Your task to perform on an android device: move an email to a new category in the gmail app Image 0: 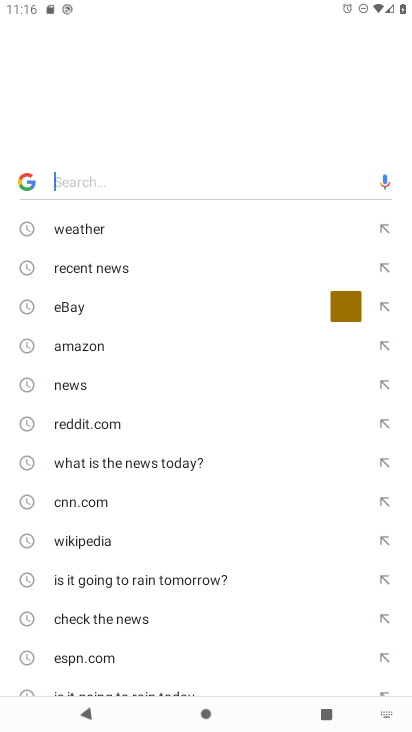
Step 0: drag from (365, 546) to (206, 68)
Your task to perform on an android device: move an email to a new category in the gmail app Image 1: 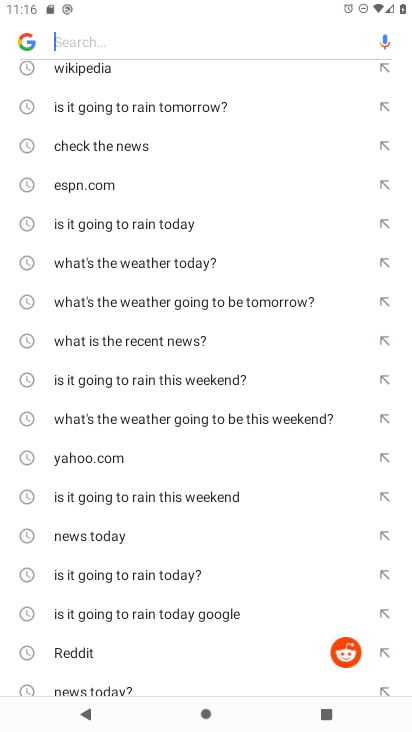
Step 1: press home button
Your task to perform on an android device: move an email to a new category in the gmail app Image 2: 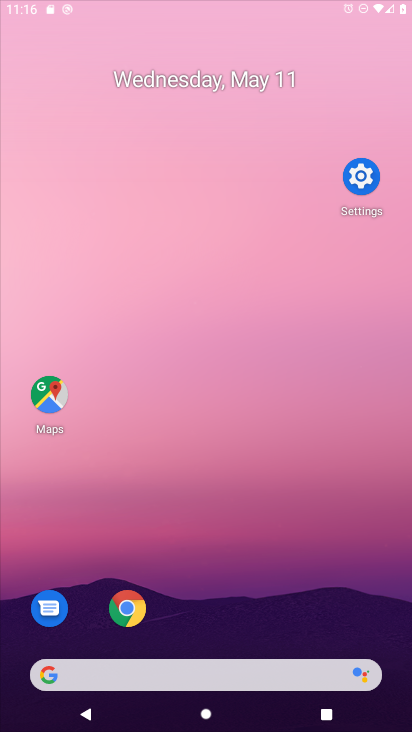
Step 2: press home button
Your task to perform on an android device: move an email to a new category in the gmail app Image 3: 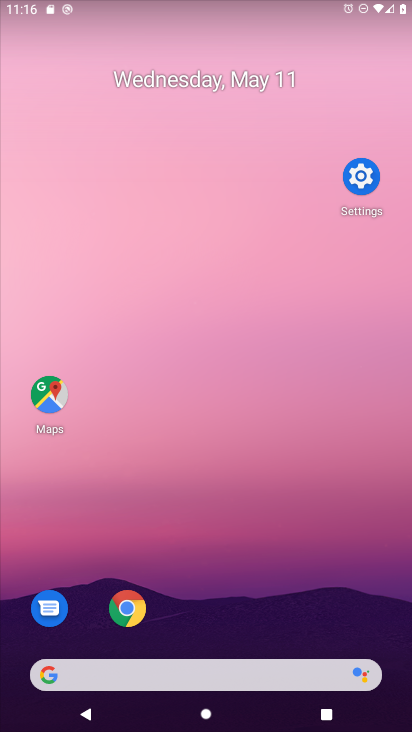
Step 3: drag from (358, 647) to (143, 10)
Your task to perform on an android device: move an email to a new category in the gmail app Image 4: 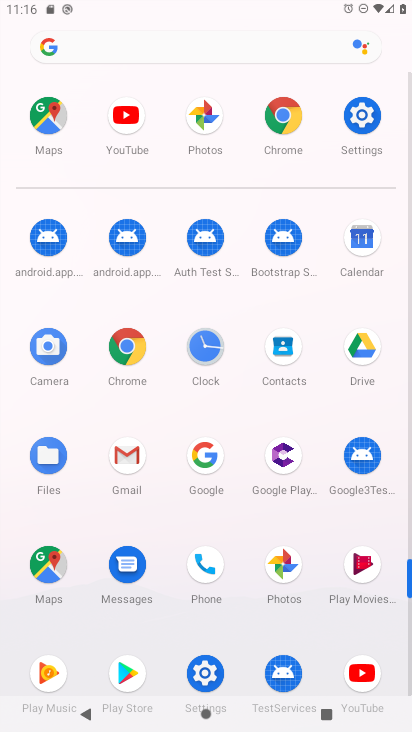
Step 4: drag from (300, 597) to (115, 73)
Your task to perform on an android device: move an email to a new category in the gmail app Image 5: 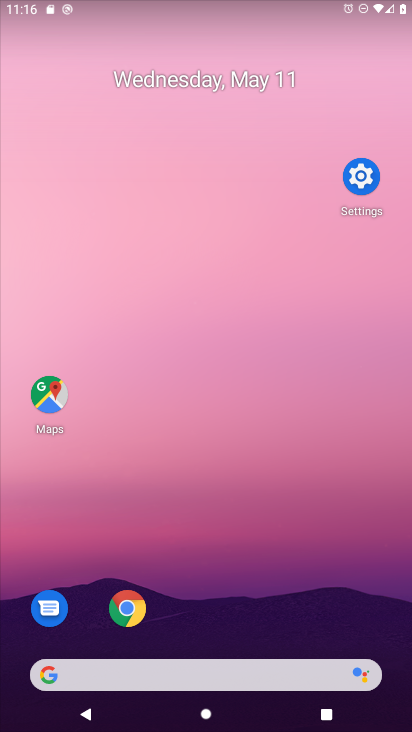
Step 5: drag from (325, 639) to (69, 1)
Your task to perform on an android device: move an email to a new category in the gmail app Image 6: 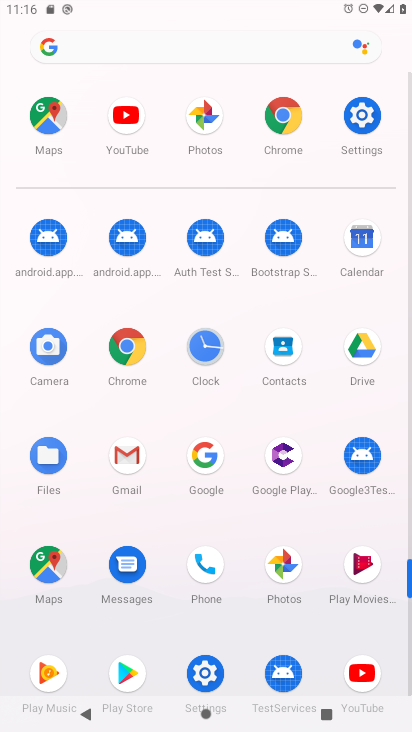
Step 6: click (124, 471)
Your task to perform on an android device: move an email to a new category in the gmail app Image 7: 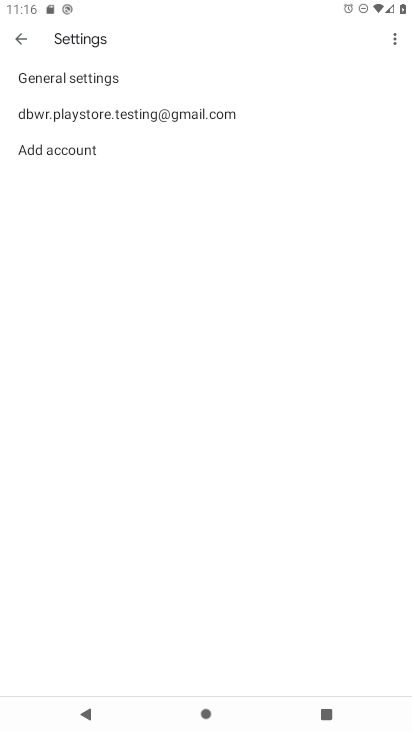
Step 7: click (19, 41)
Your task to perform on an android device: move an email to a new category in the gmail app Image 8: 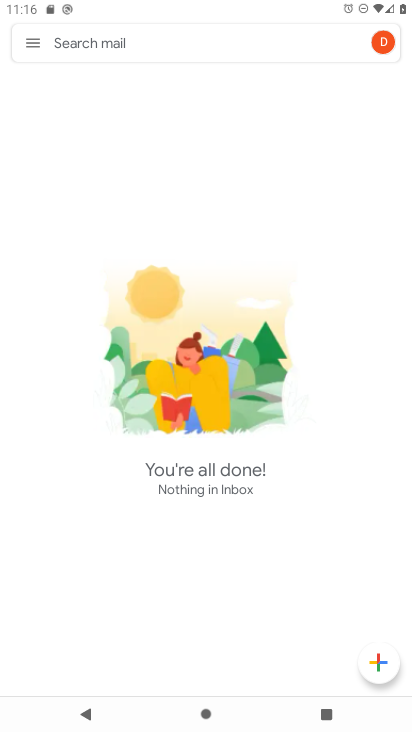
Step 8: drag from (42, 45) to (46, 341)
Your task to perform on an android device: move an email to a new category in the gmail app Image 9: 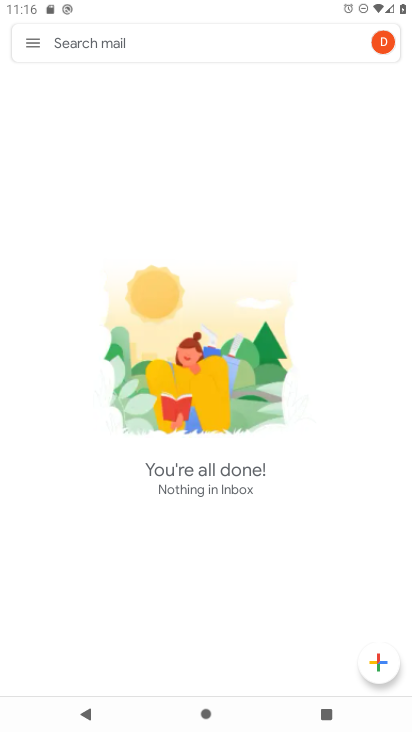
Step 9: drag from (34, 45) to (63, 227)
Your task to perform on an android device: move an email to a new category in the gmail app Image 10: 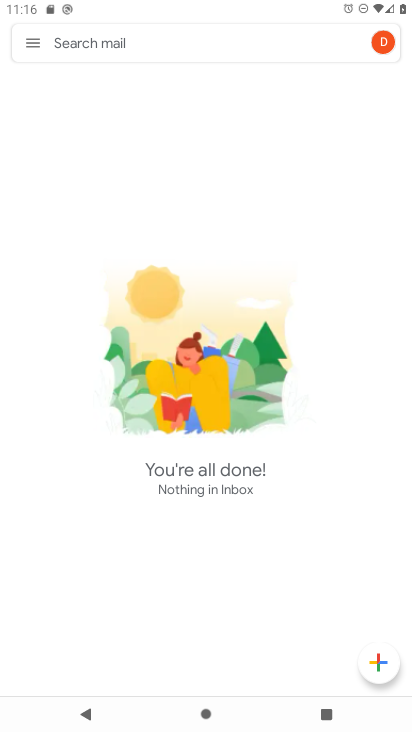
Step 10: click (34, 37)
Your task to perform on an android device: move an email to a new category in the gmail app Image 11: 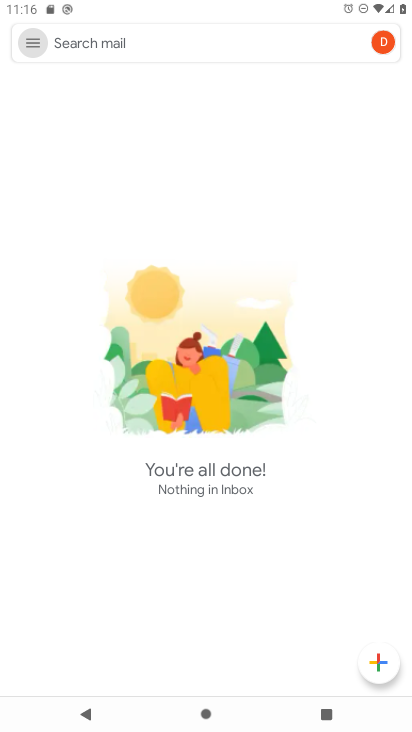
Step 11: drag from (33, 33) to (289, 471)
Your task to perform on an android device: move an email to a new category in the gmail app Image 12: 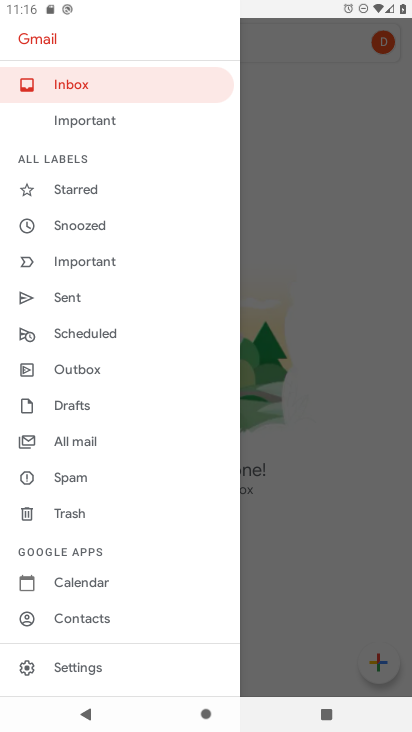
Step 12: click (70, 432)
Your task to perform on an android device: move an email to a new category in the gmail app Image 13: 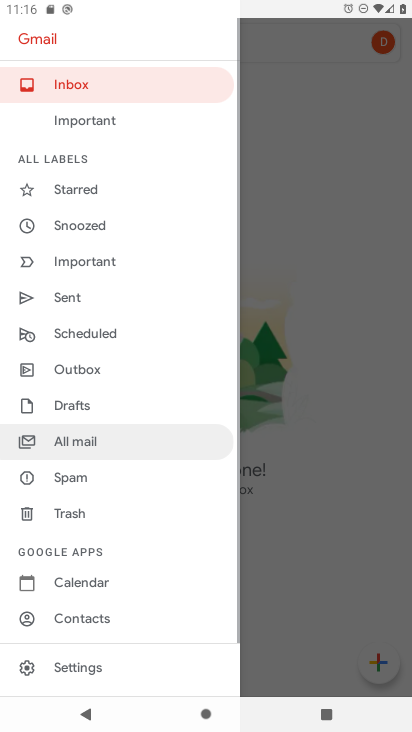
Step 13: click (70, 432)
Your task to perform on an android device: move an email to a new category in the gmail app Image 14: 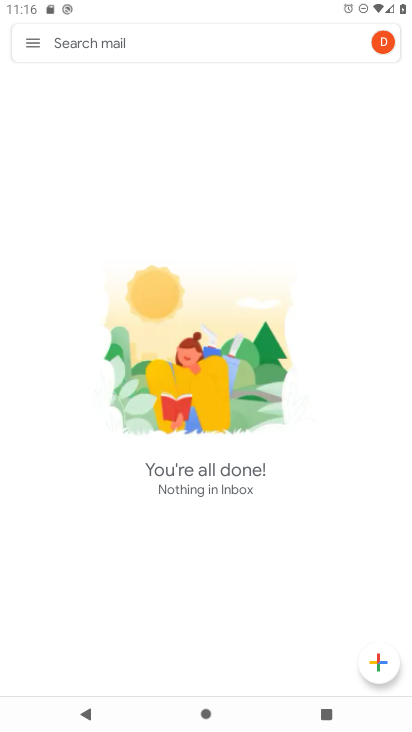
Step 14: click (81, 438)
Your task to perform on an android device: move an email to a new category in the gmail app Image 15: 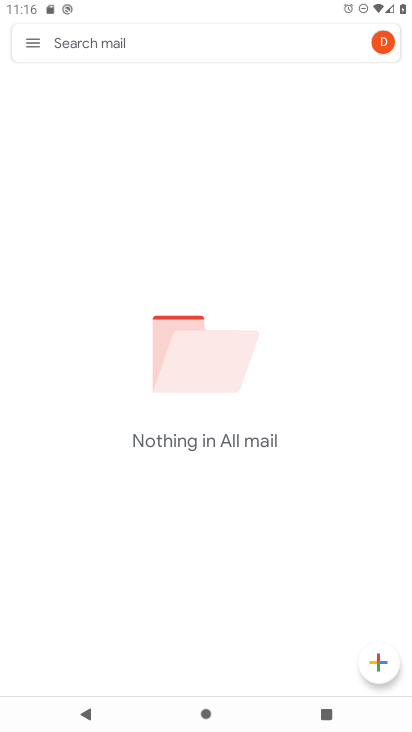
Step 15: task complete